Your task to perform on an android device: Open Google Chrome and open the bookmarks view Image 0: 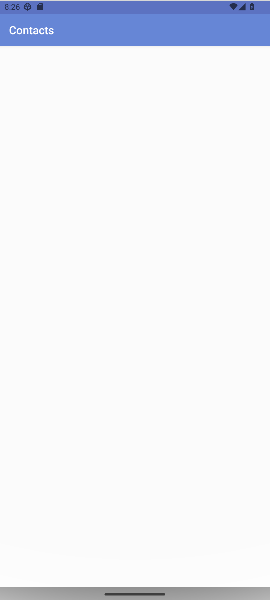
Step 0: press home button
Your task to perform on an android device: Open Google Chrome and open the bookmarks view Image 1: 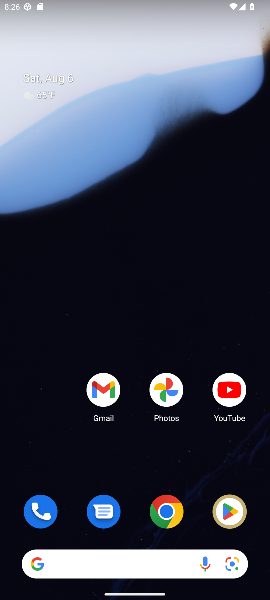
Step 1: click (166, 513)
Your task to perform on an android device: Open Google Chrome and open the bookmarks view Image 2: 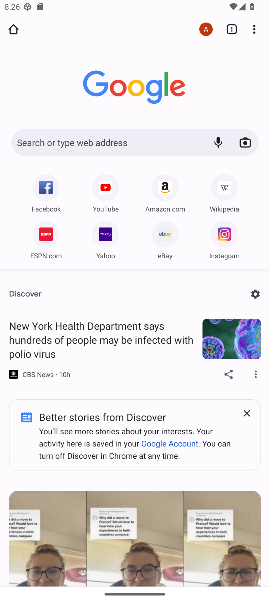
Step 2: drag from (252, 25) to (177, 344)
Your task to perform on an android device: Open Google Chrome and open the bookmarks view Image 3: 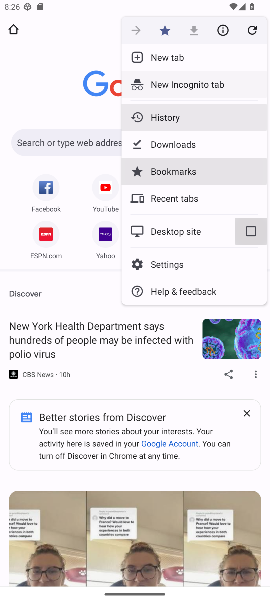
Step 3: click (155, 242)
Your task to perform on an android device: Open Google Chrome and open the bookmarks view Image 4: 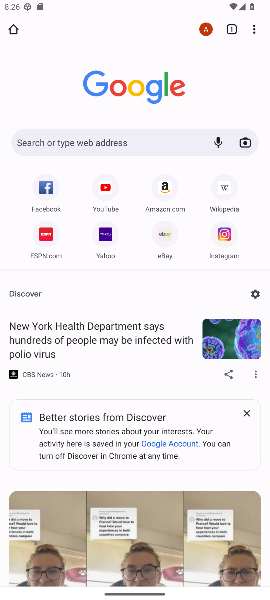
Step 4: drag from (250, 32) to (154, 266)
Your task to perform on an android device: Open Google Chrome and open the bookmarks view Image 5: 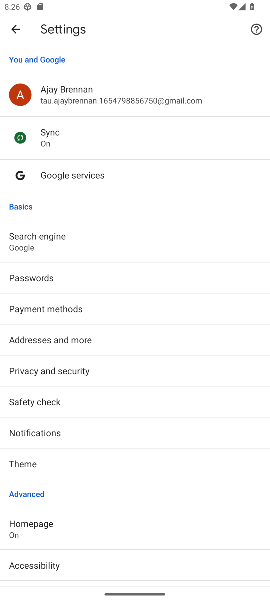
Step 5: click (14, 24)
Your task to perform on an android device: Open Google Chrome and open the bookmarks view Image 6: 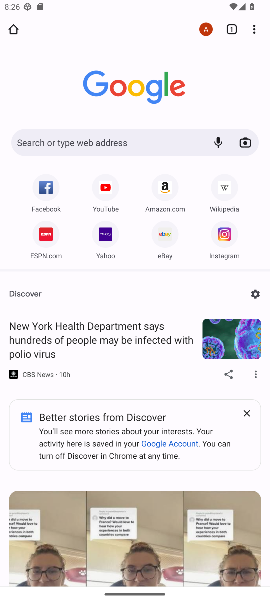
Step 6: task complete